Your task to perform on an android device: show emergency info Image 0: 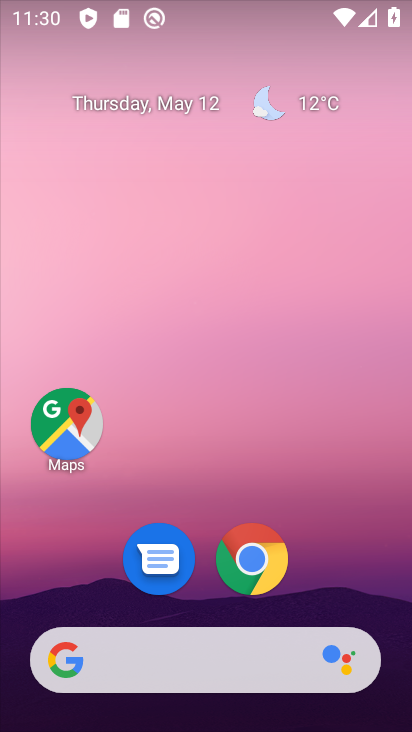
Step 0: drag from (102, 602) to (279, 106)
Your task to perform on an android device: show emergency info Image 1: 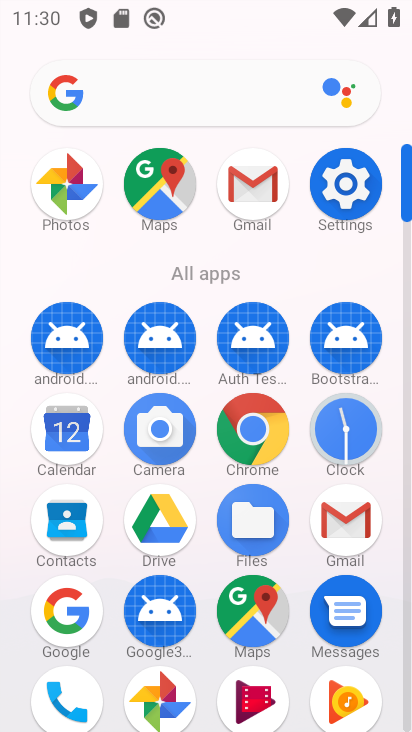
Step 1: drag from (170, 588) to (316, 235)
Your task to perform on an android device: show emergency info Image 2: 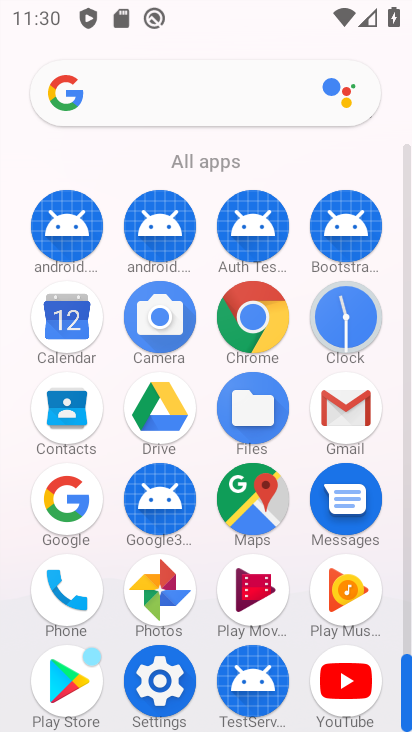
Step 2: click (164, 675)
Your task to perform on an android device: show emergency info Image 3: 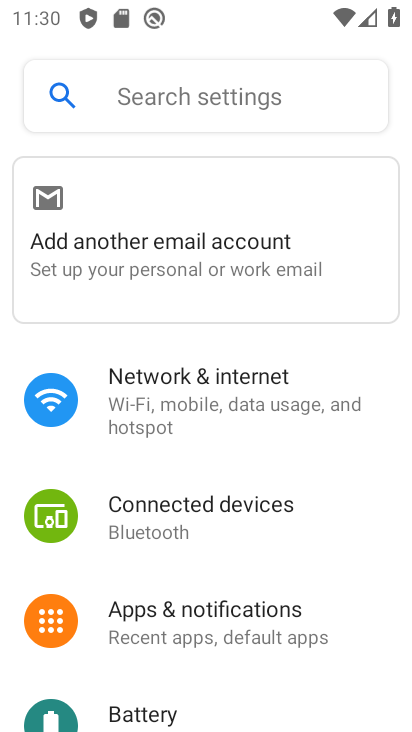
Step 3: drag from (208, 644) to (407, 121)
Your task to perform on an android device: show emergency info Image 4: 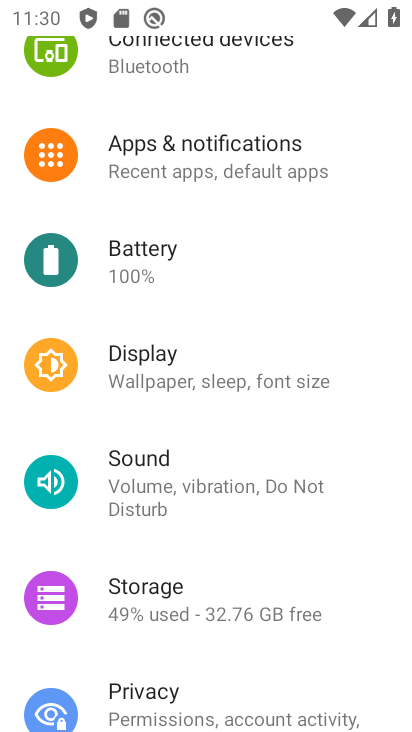
Step 4: drag from (225, 661) to (410, 177)
Your task to perform on an android device: show emergency info Image 5: 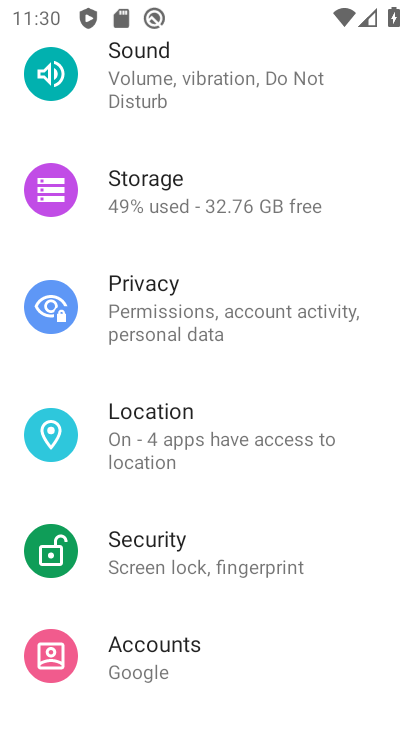
Step 5: drag from (160, 641) to (311, 231)
Your task to perform on an android device: show emergency info Image 6: 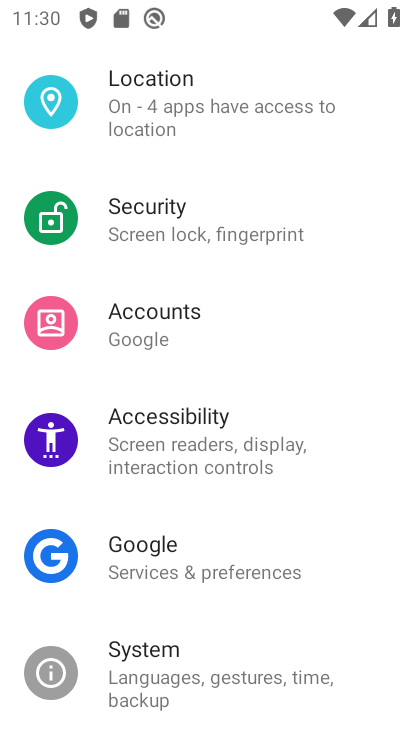
Step 6: drag from (199, 655) to (308, 255)
Your task to perform on an android device: show emergency info Image 7: 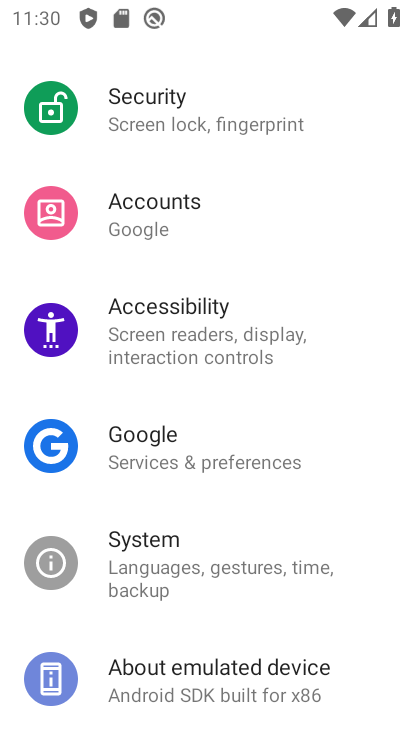
Step 7: click (215, 668)
Your task to perform on an android device: show emergency info Image 8: 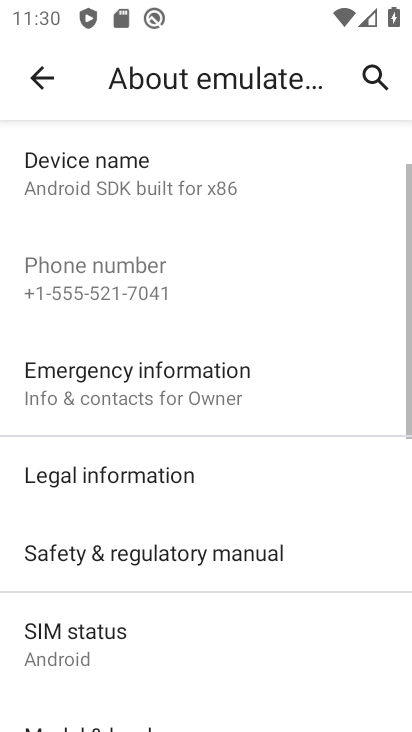
Step 8: click (212, 379)
Your task to perform on an android device: show emergency info Image 9: 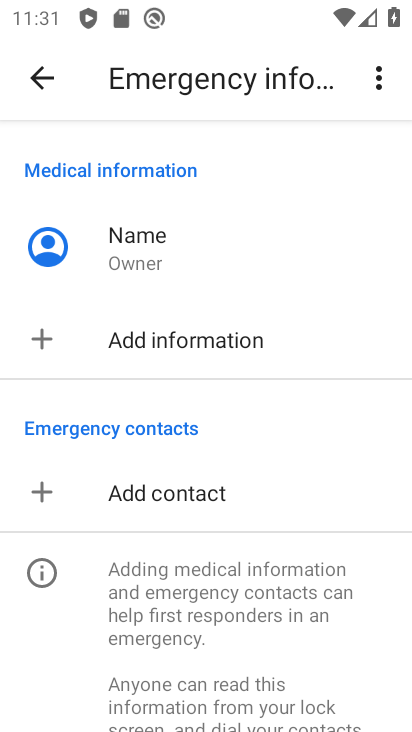
Step 9: task complete